Your task to perform on an android device: Search for panasonic triple a on walmart, select the first entry, and add it to the cart. Image 0: 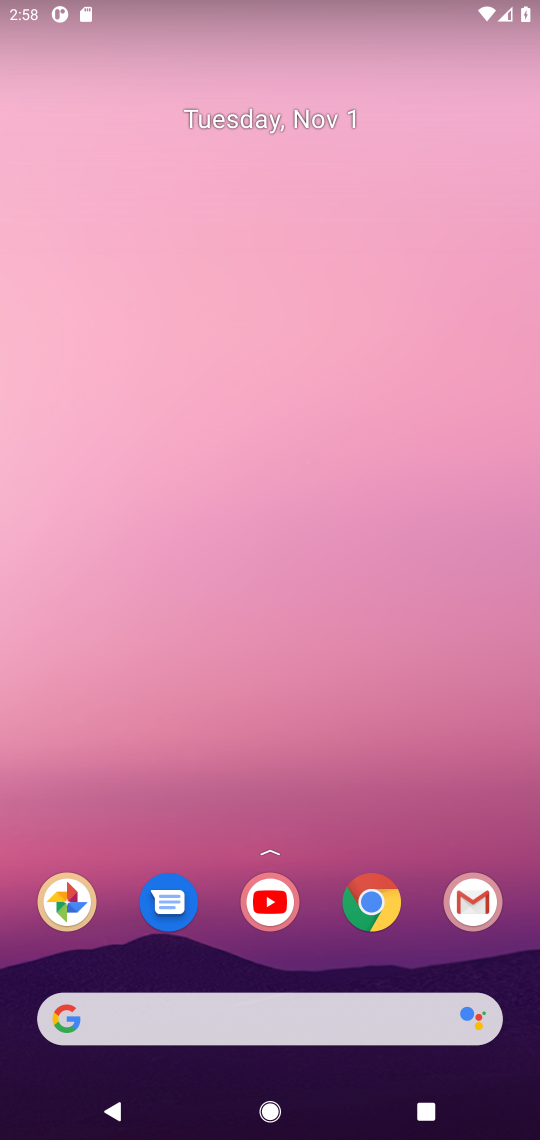
Step 0: click (374, 903)
Your task to perform on an android device: Search for panasonic triple a on walmart, select the first entry, and add it to the cart. Image 1: 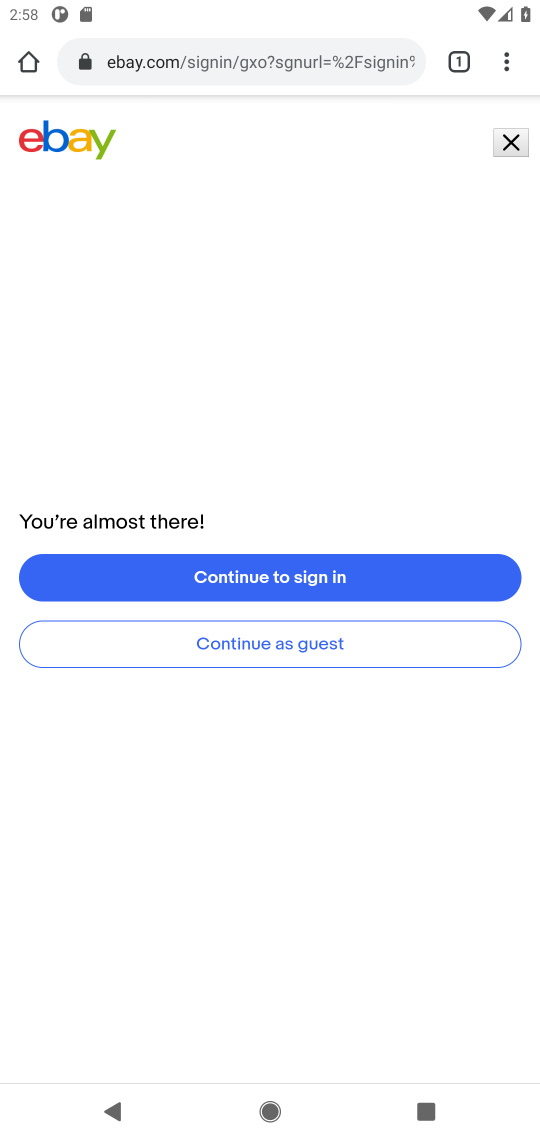
Step 1: click (331, 61)
Your task to perform on an android device: Search for panasonic triple a on walmart, select the first entry, and add it to the cart. Image 2: 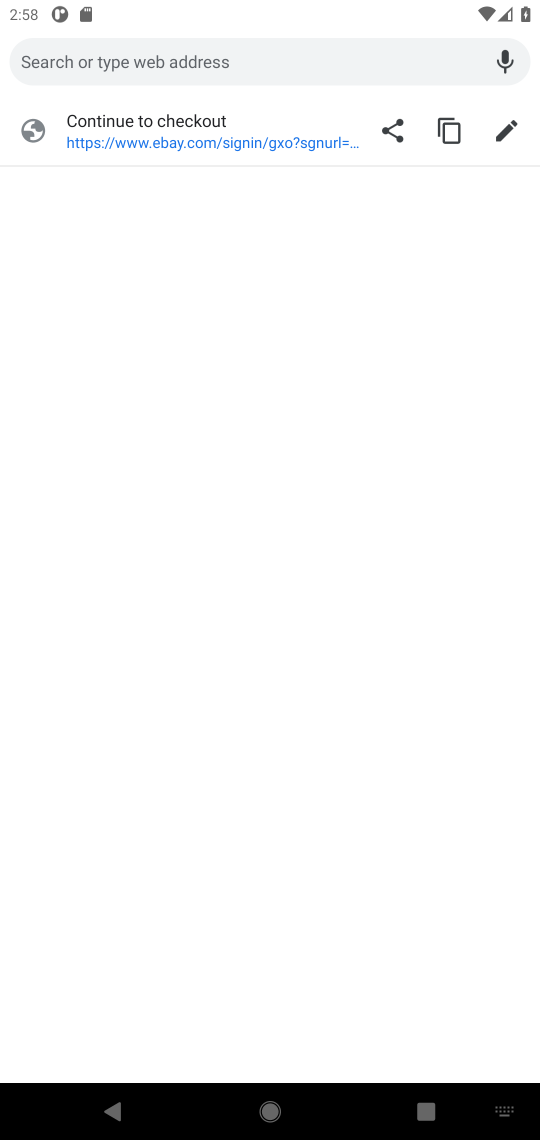
Step 2: type "walmart"
Your task to perform on an android device: Search for panasonic triple a on walmart, select the first entry, and add it to the cart. Image 3: 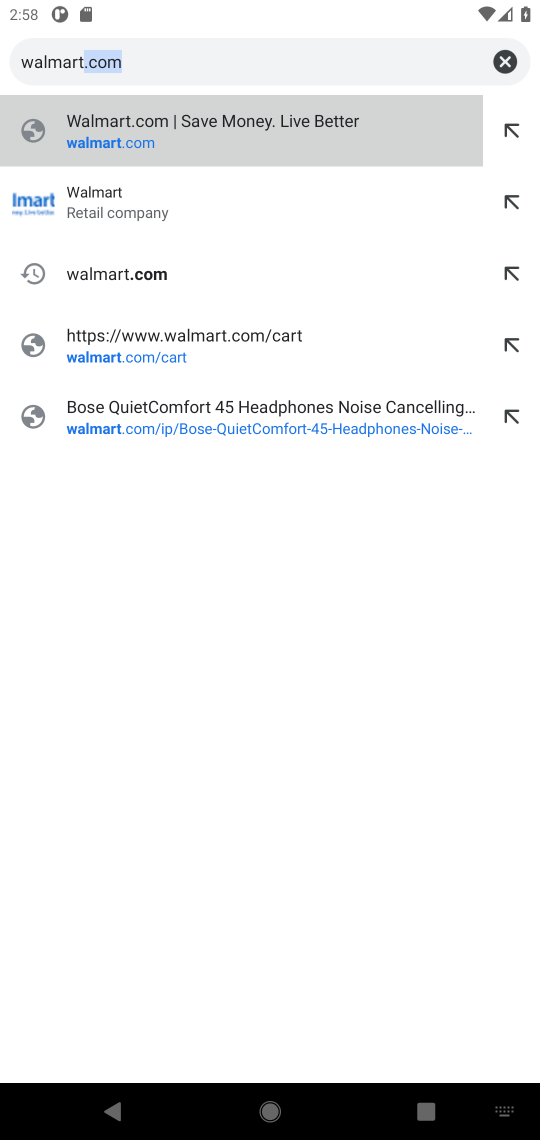
Step 3: click (114, 211)
Your task to perform on an android device: Search for panasonic triple a on walmart, select the first entry, and add it to the cart. Image 4: 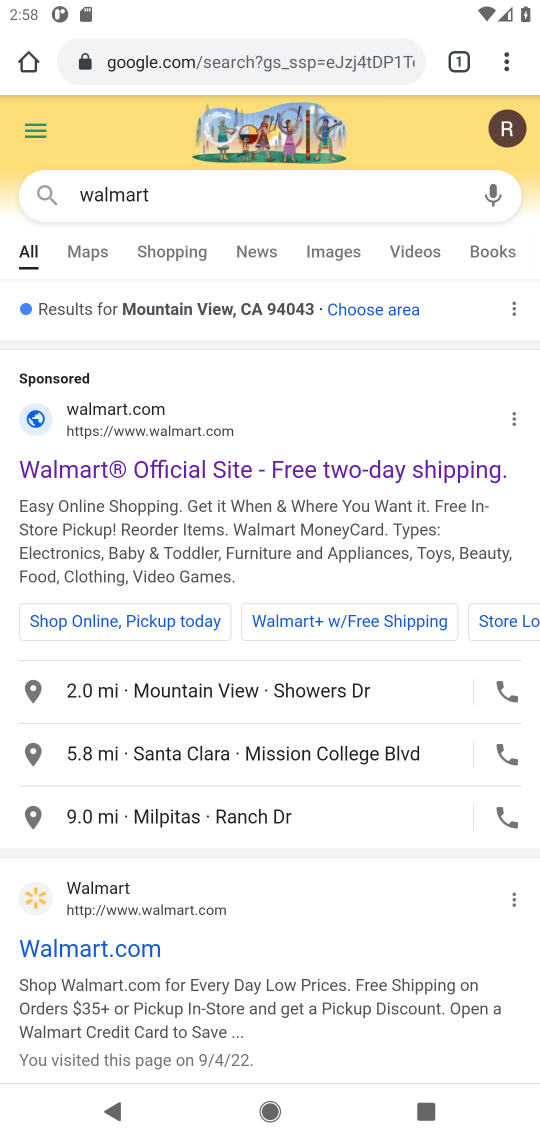
Step 4: click (111, 951)
Your task to perform on an android device: Search for panasonic triple a on walmart, select the first entry, and add it to the cart. Image 5: 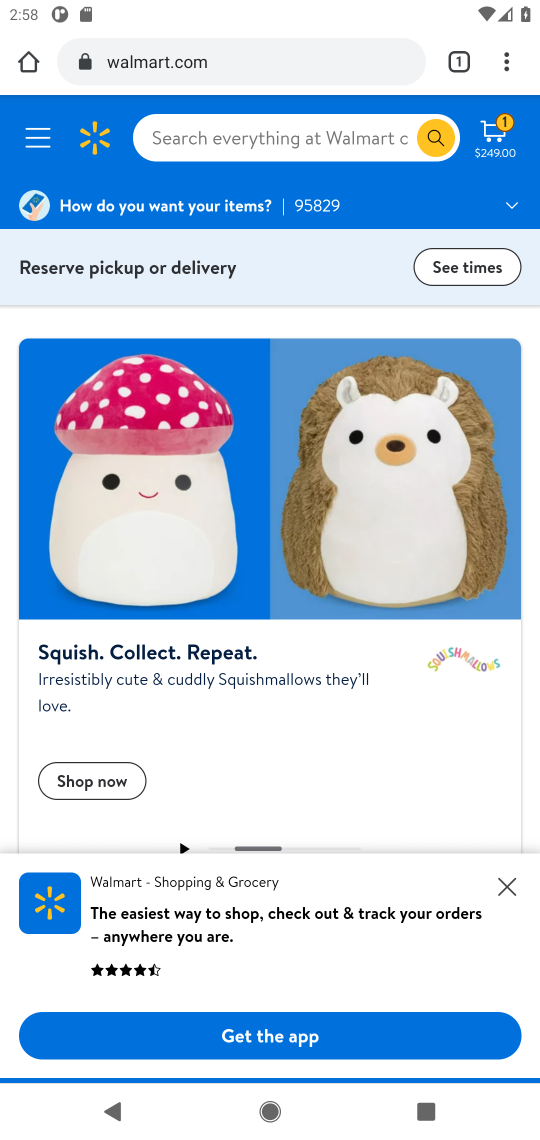
Step 5: click (238, 138)
Your task to perform on an android device: Search for panasonic triple a on walmart, select the first entry, and add it to the cart. Image 6: 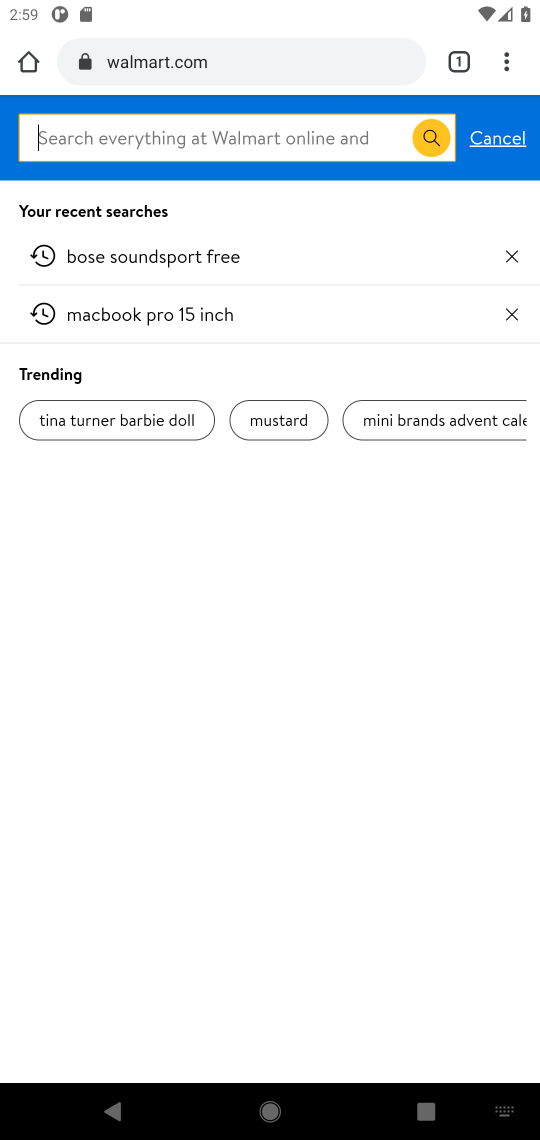
Step 6: type "panasonic triple a"
Your task to perform on an android device: Search for panasonic triple a on walmart, select the first entry, and add it to the cart. Image 7: 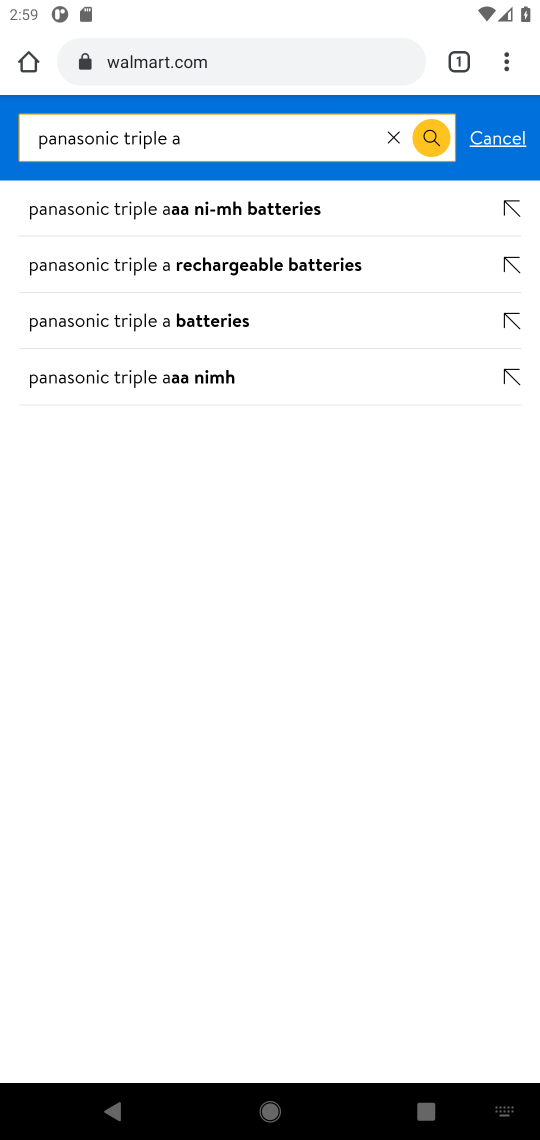
Step 7: click (435, 140)
Your task to perform on an android device: Search for panasonic triple a on walmart, select the first entry, and add it to the cart. Image 8: 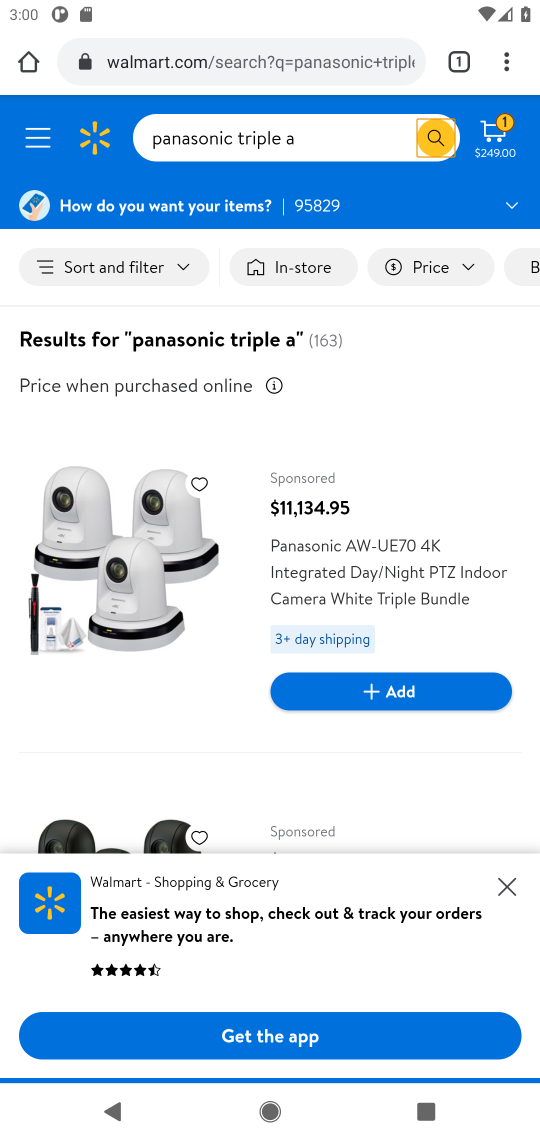
Step 8: click (379, 692)
Your task to perform on an android device: Search for panasonic triple a on walmart, select the first entry, and add it to the cart. Image 9: 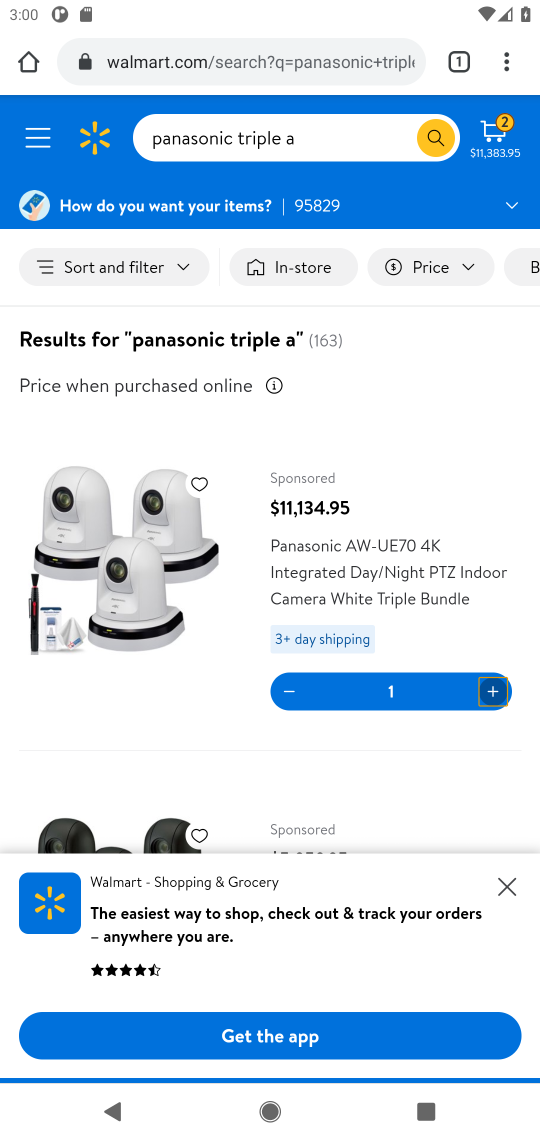
Step 9: task complete